Your task to perform on an android device: How do I get to the nearest Chipotle? Image 0: 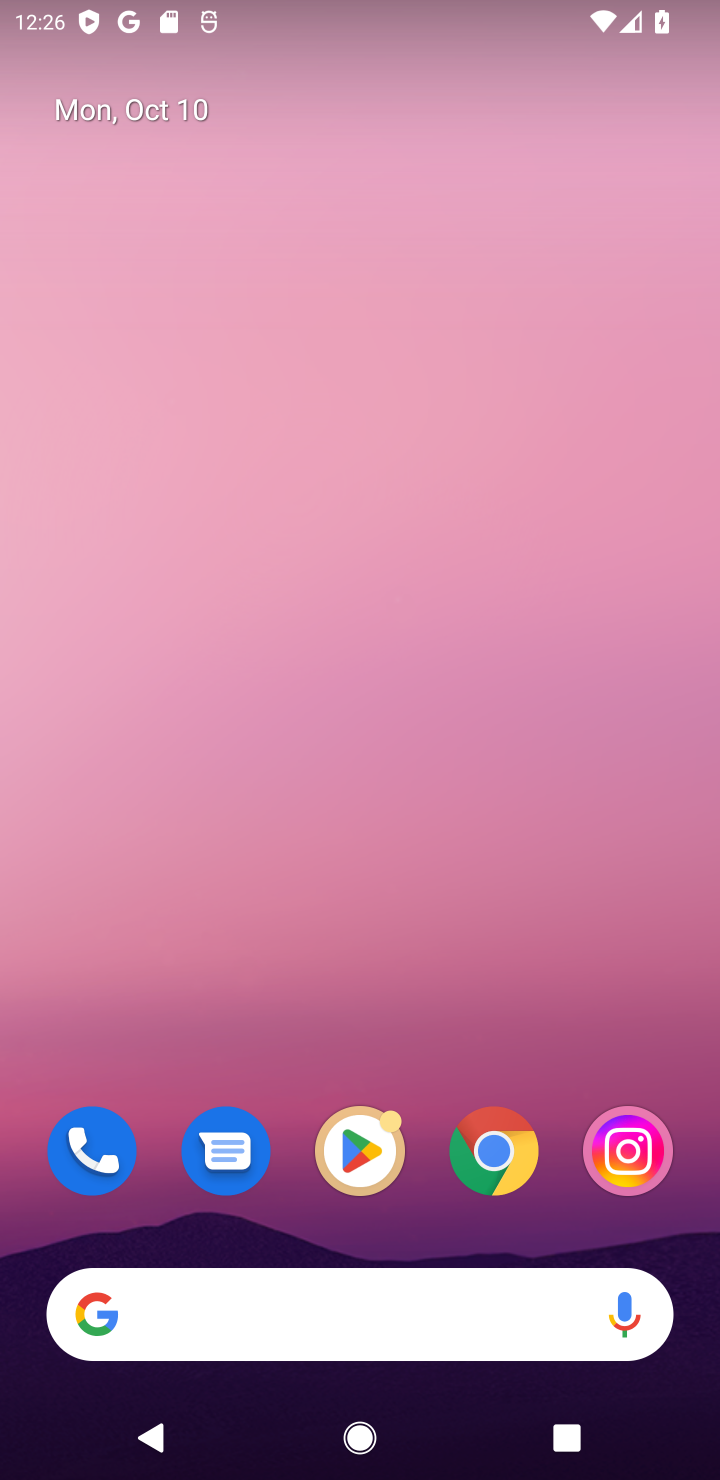
Step 0: press home button
Your task to perform on an android device: How do I get to the nearest Chipotle? Image 1: 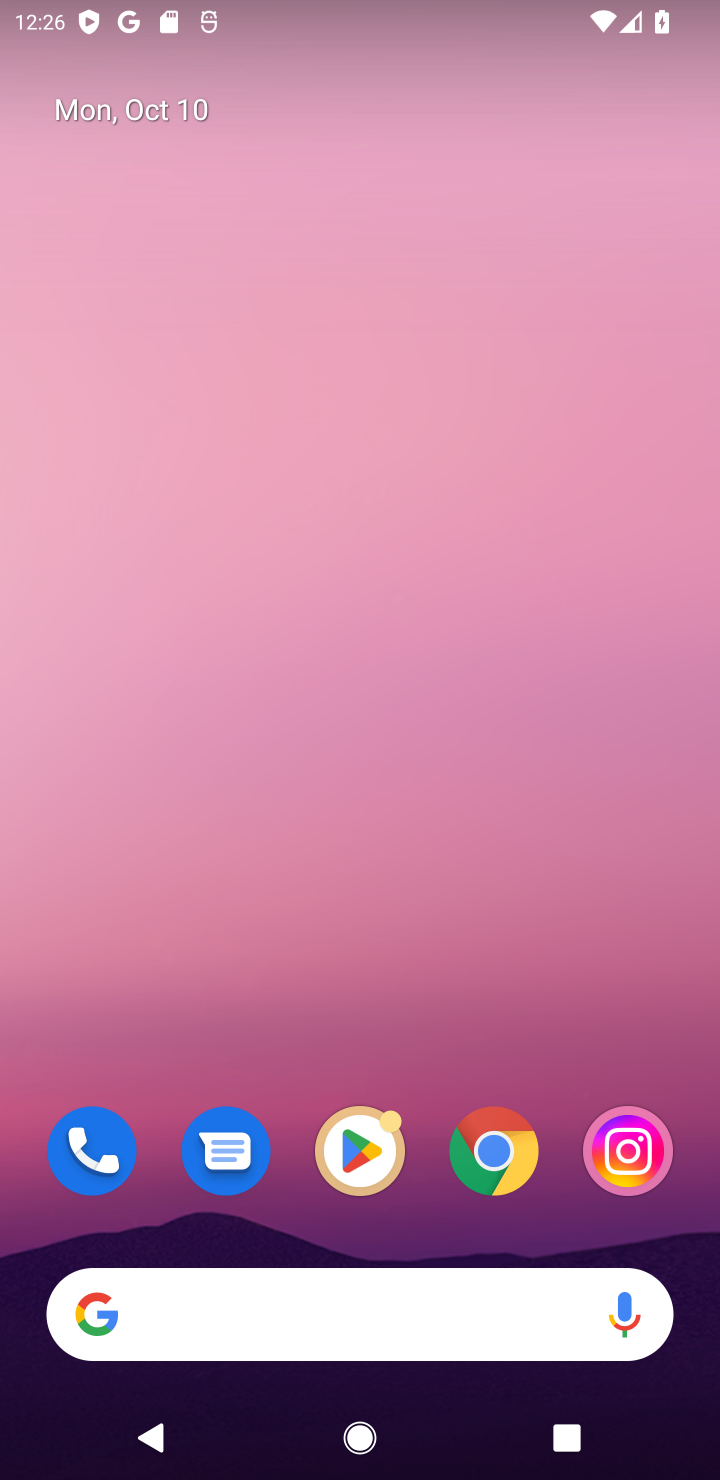
Step 1: click (355, 1321)
Your task to perform on an android device: How do I get to the nearest Chipotle? Image 2: 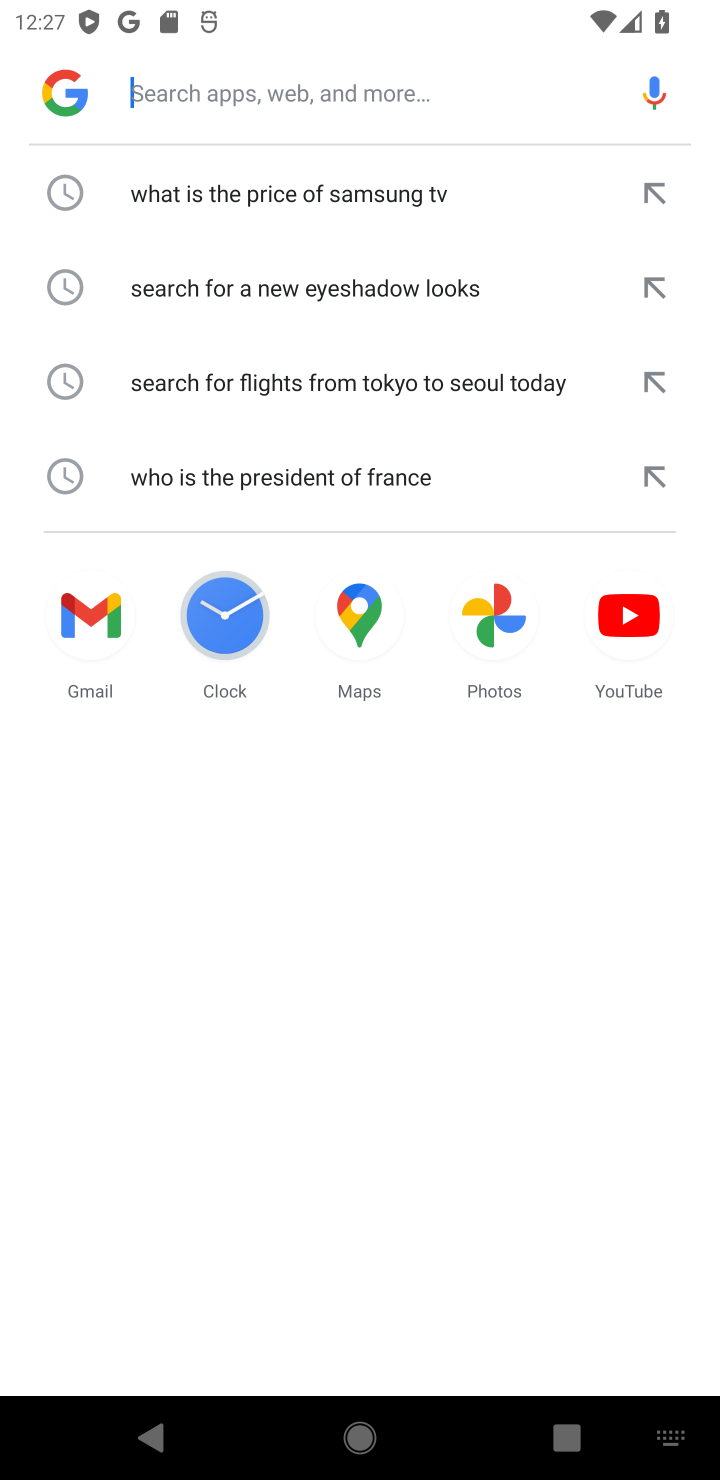
Step 2: type "How do I get to the nearest Chipotle?"
Your task to perform on an android device: How do I get to the nearest Chipotle? Image 3: 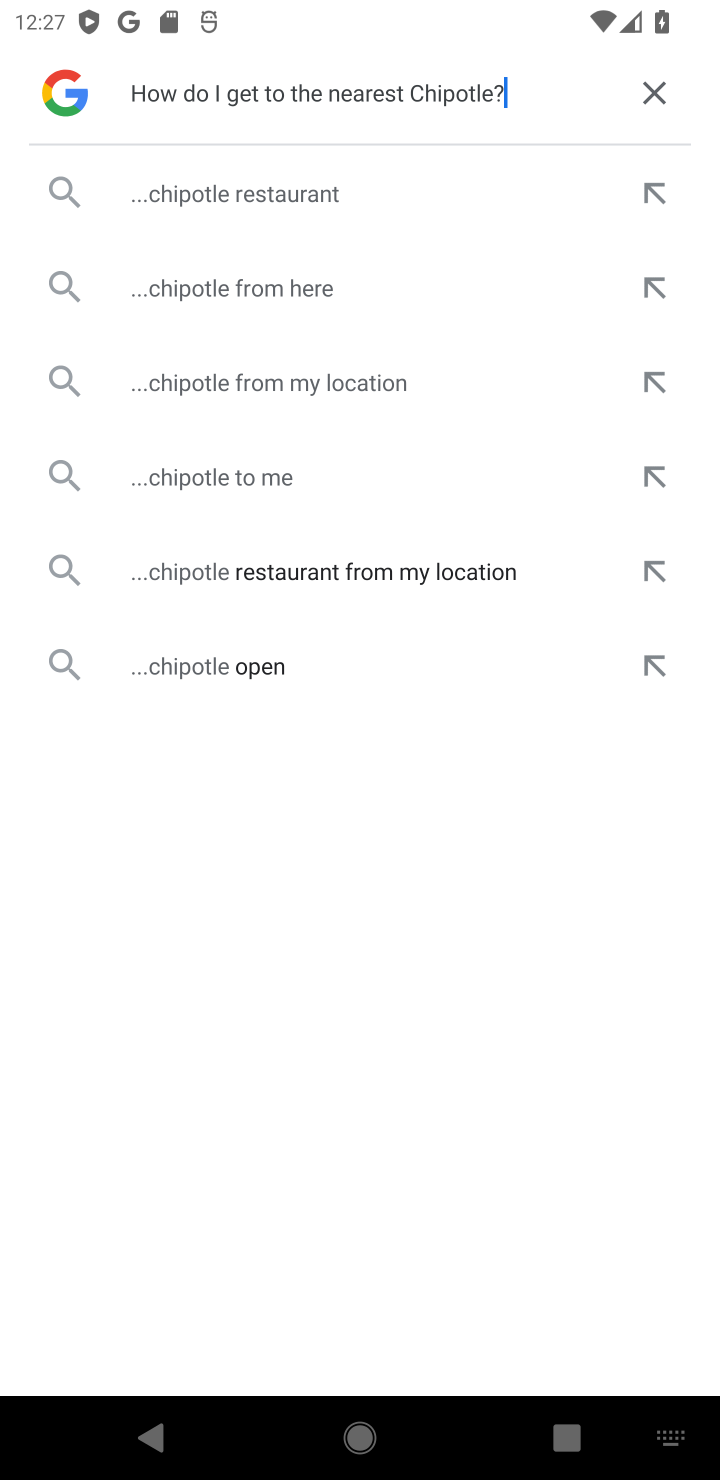
Step 3: click (235, 653)
Your task to perform on an android device: How do I get to the nearest Chipotle? Image 4: 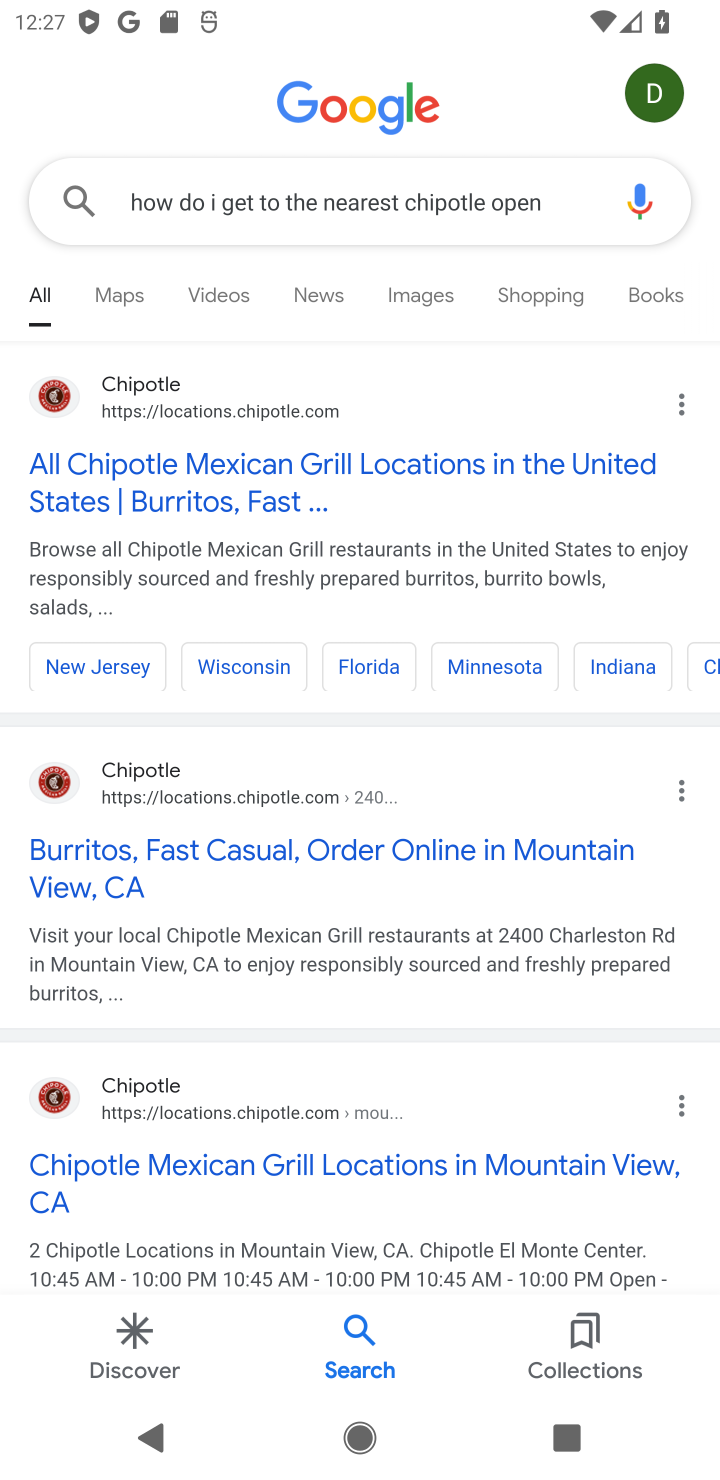
Step 4: click (227, 482)
Your task to perform on an android device: How do I get to the nearest Chipotle? Image 5: 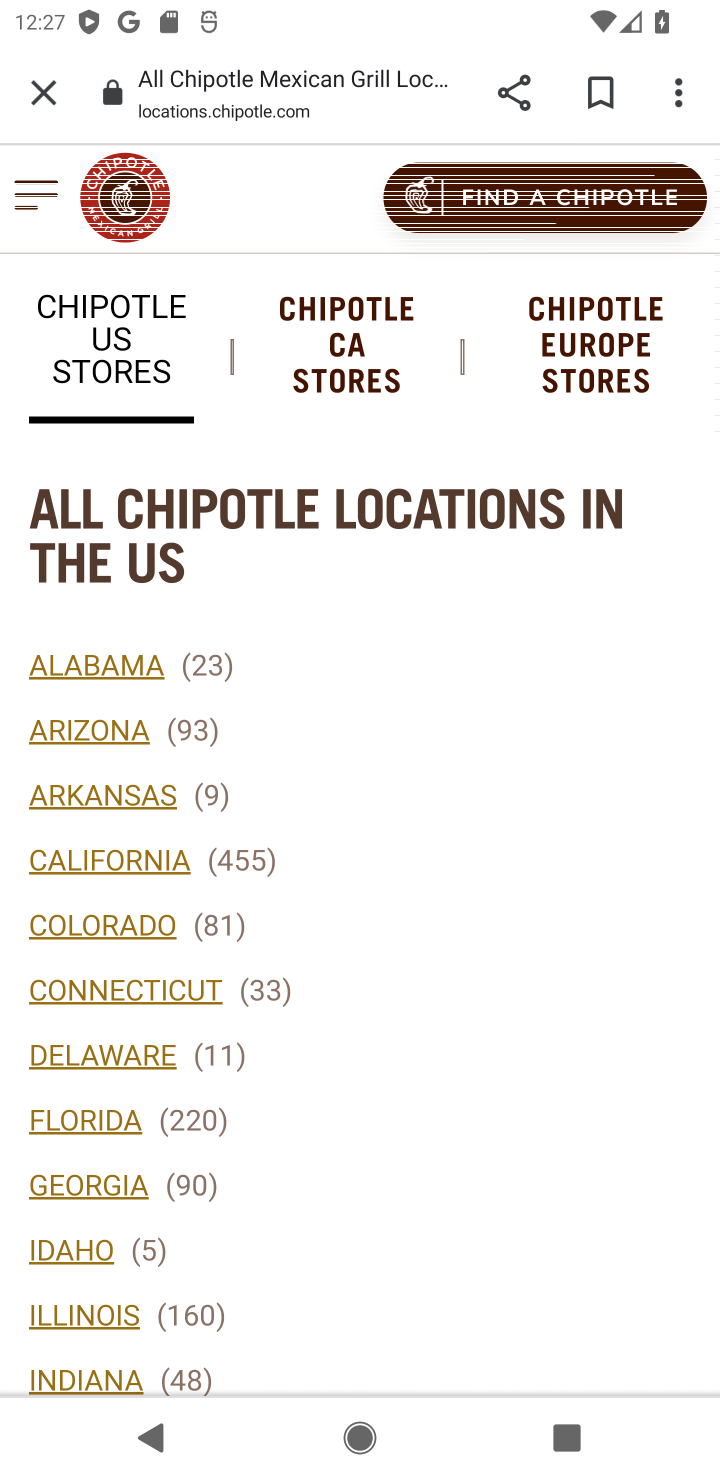
Step 5: task complete